Your task to perform on an android device: open chrome and create a bookmark for the current page Image 0: 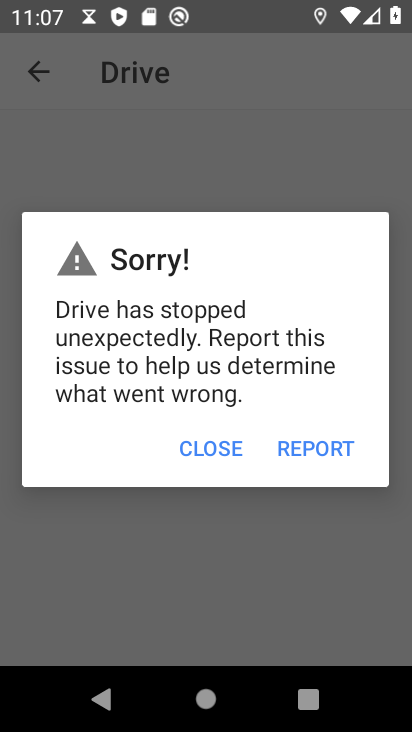
Step 0: press home button
Your task to perform on an android device: open chrome and create a bookmark for the current page Image 1: 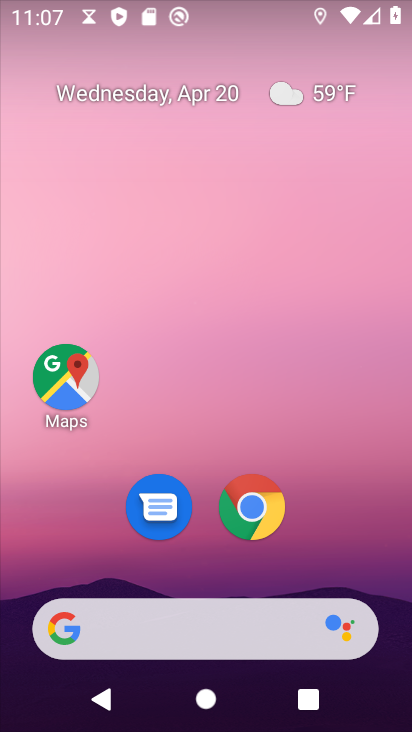
Step 1: drag from (281, 615) to (314, 231)
Your task to perform on an android device: open chrome and create a bookmark for the current page Image 2: 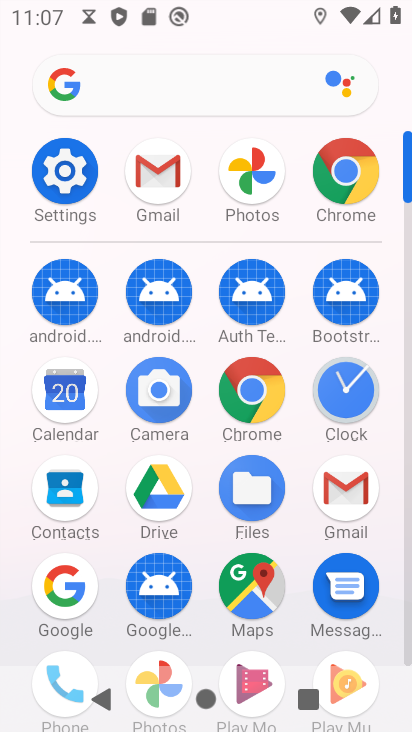
Step 2: click (248, 408)
Your task to perform on an android device: open chrome and create a bookmark for the current page Image 3: 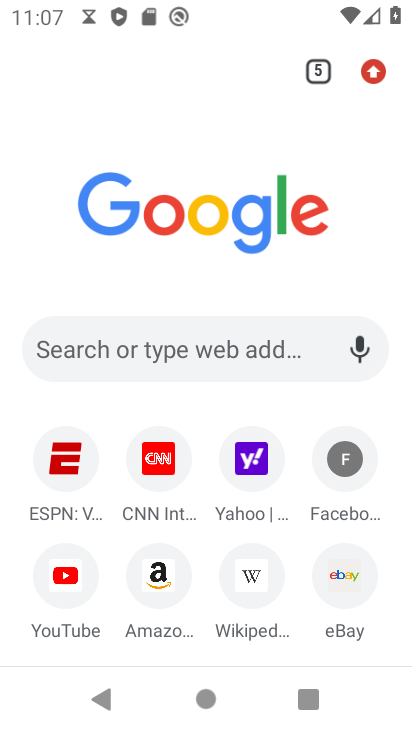
Step 3: click (372, 75)
Your task to perform on an android device: open chrome and create a bookmark for the current page Image 4: 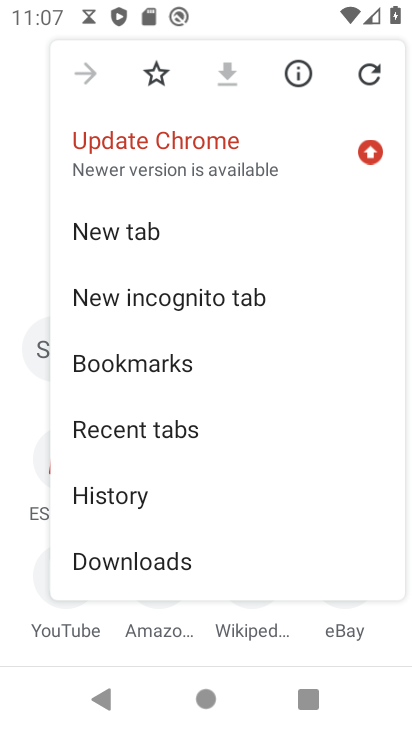
Step 4: click (122, 363)
Your task to perform on an android device: open chrome and create a bookmark for the current page Image 5: 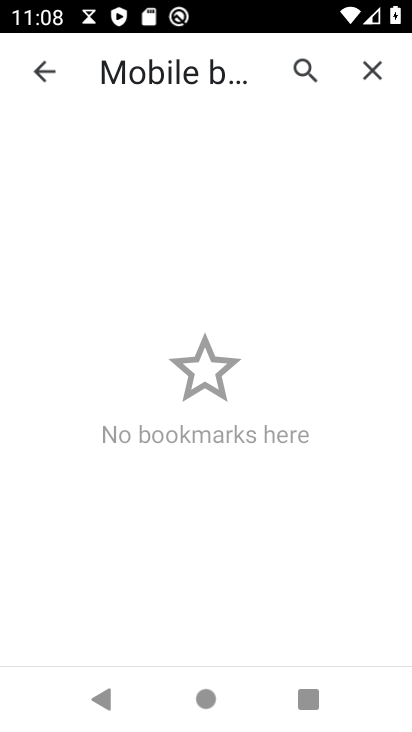
Step 5: task complete